Your task to perform on an android device: show emergency info Image 0: 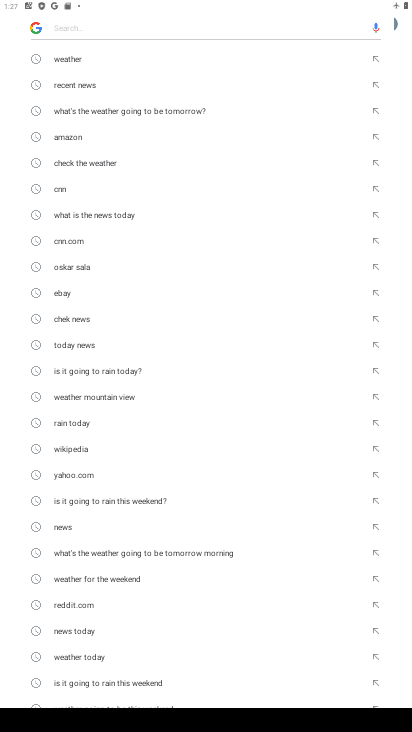
Step 0: press home button
Your task to perform on an android device: show emergency info Image 1: 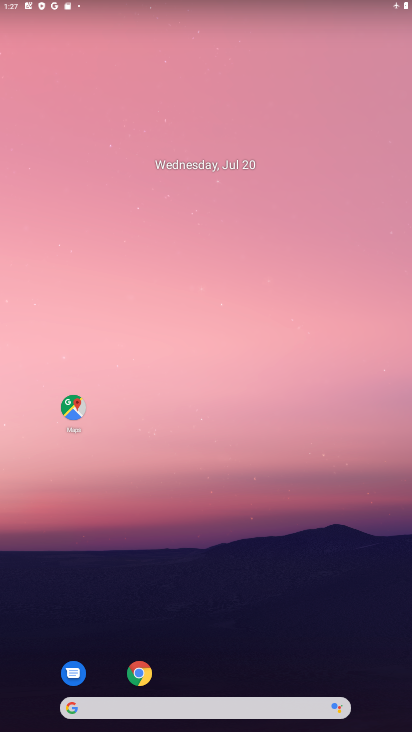
Step 1: drag from (273, 645) to (201, 78)
Your task to perform on an android device: show emergency info Image 2: 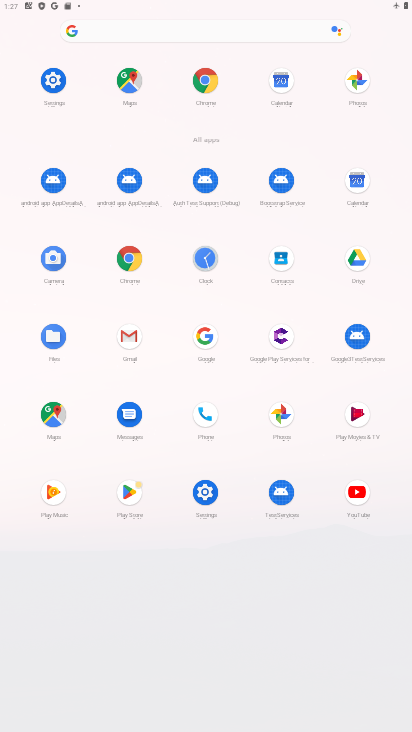
Step 2: click (53, 78)
Your task to perform on an android device: show emergency info Image 3: 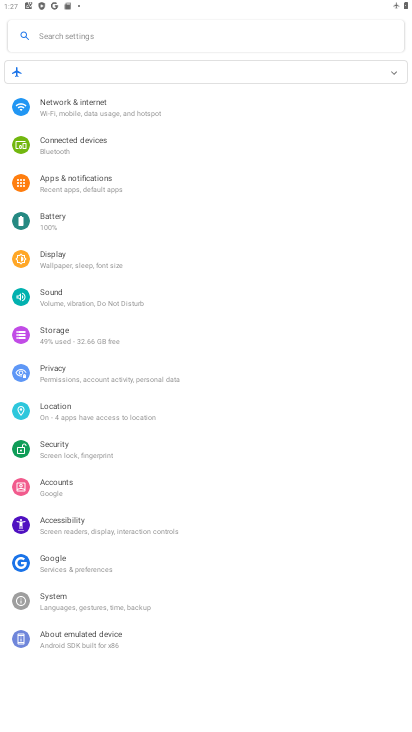
Step 3: click (102, 630)
Your task to perform on an android device: show emergency info Image 4: 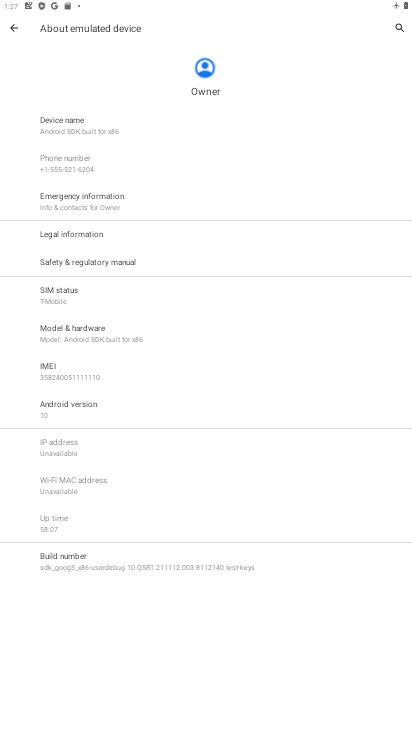
Step 4: click (165, 198)
Your task to perform on an android device: show emergency info Image 5: 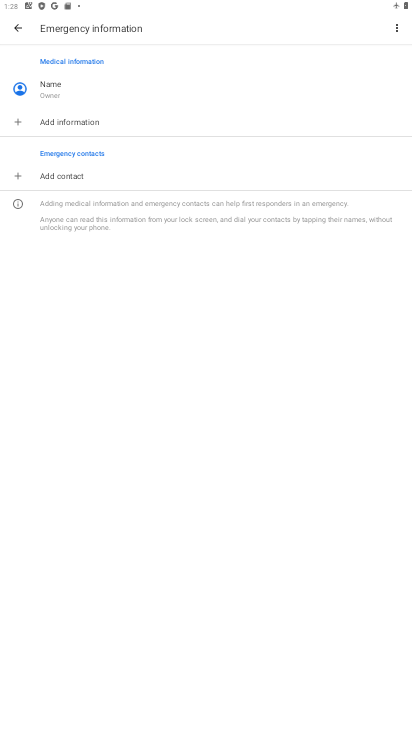
Step 5: task complete